Your task to perform on an android device: check data usage Image 0: 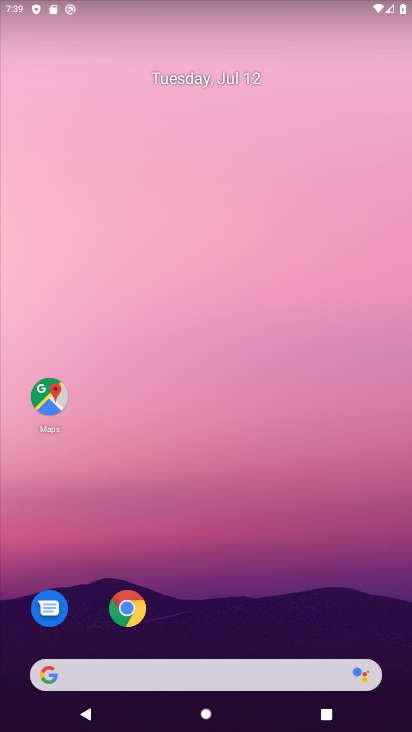
Step 0: drag from (296, 607) to (332, 135)
Your task to perform on an android device: check data usage Image 1: 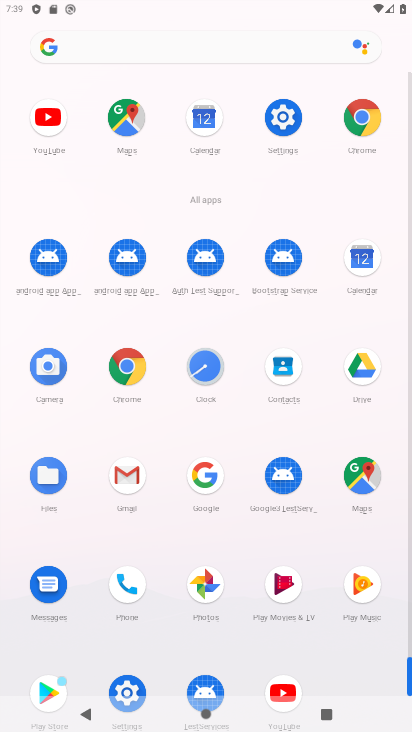
Step 1: click (290, 111)
Your task to perform on an android device: check data usage Image 2: 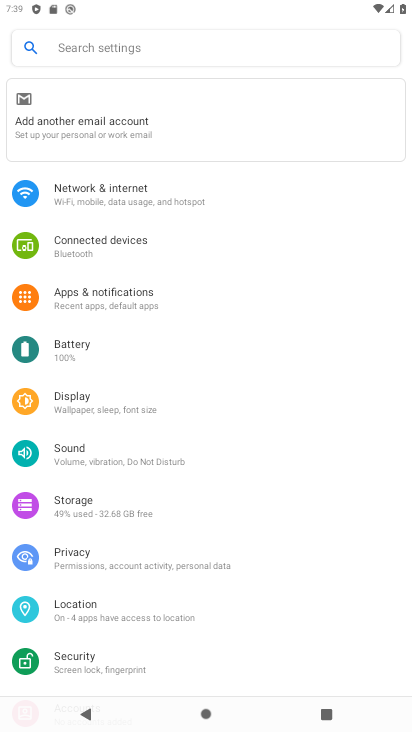
Step 2: click (148, 296)
Your task to perform on an android device: check data usage Image 3: 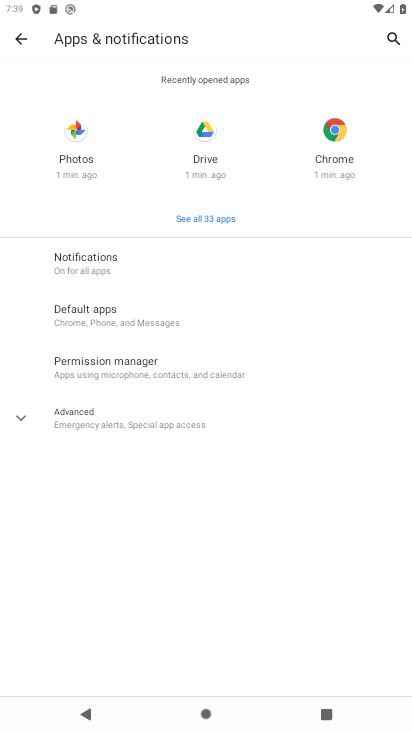
Step 3: press back button
Your task to perform on an android device: check data usage Image 4: 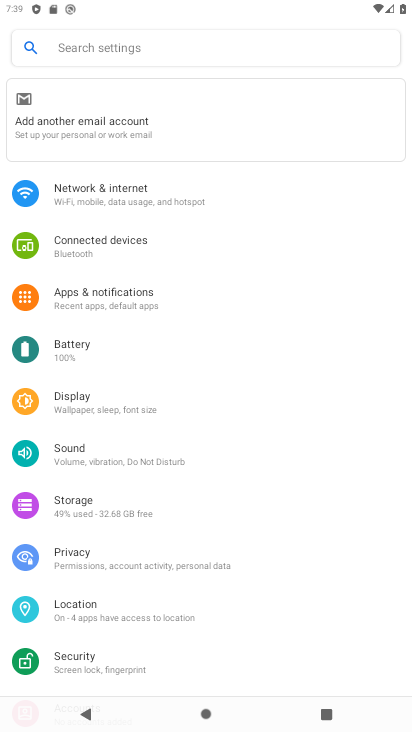
Step 4: click (97, 187)
Your task to perform on an android device: check data usage Image 5: 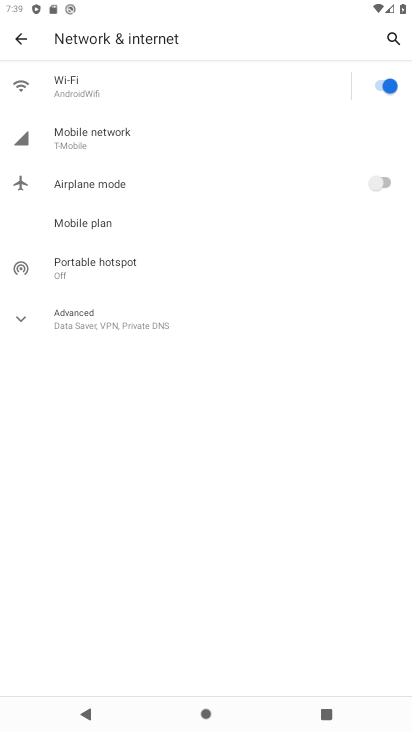
Step 5: click (156, 188)
Your task to perform on an android device: check data usage Image 6: 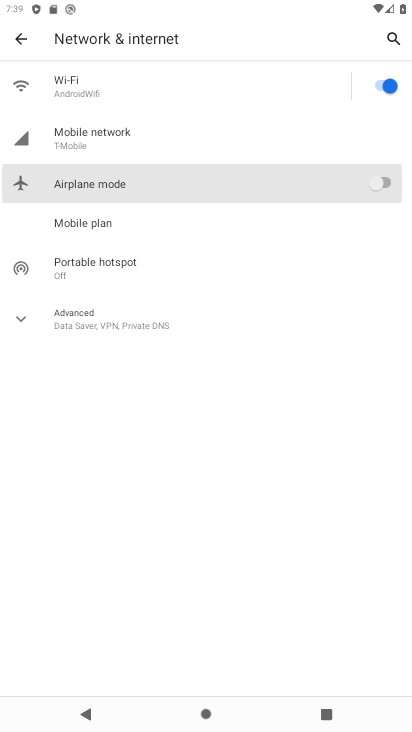
Step 6: drag from (156, 188) to (407, 181)
Your task to perform on an android device: check data usage Image 7: 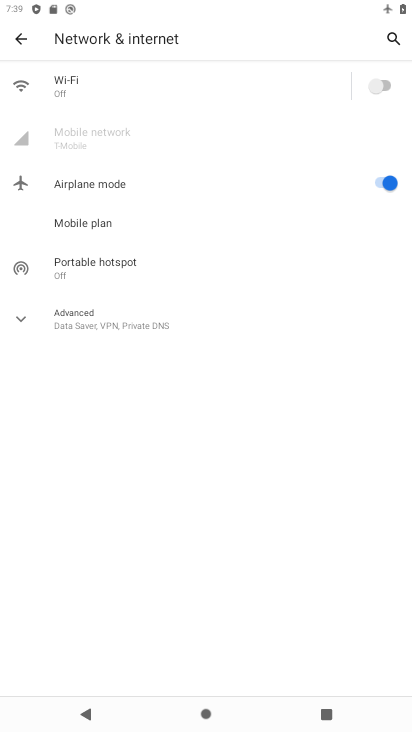
Step 7: click (371, 181)
Your task to perform on an android device: check data usage Image 8: 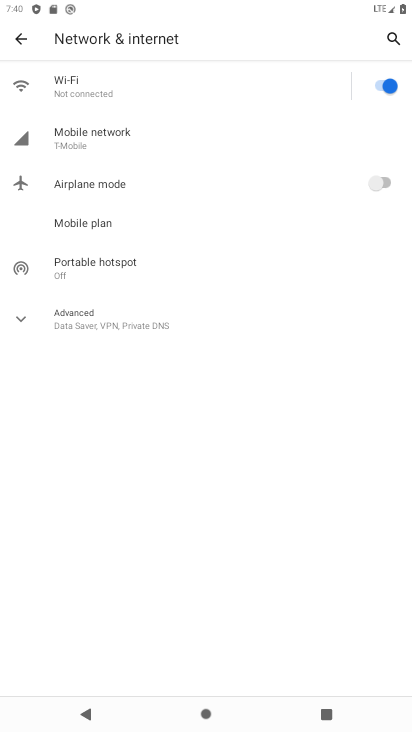
Step 8: click (184, 156)
Your task to perform on an android device: check data usage Image 9: 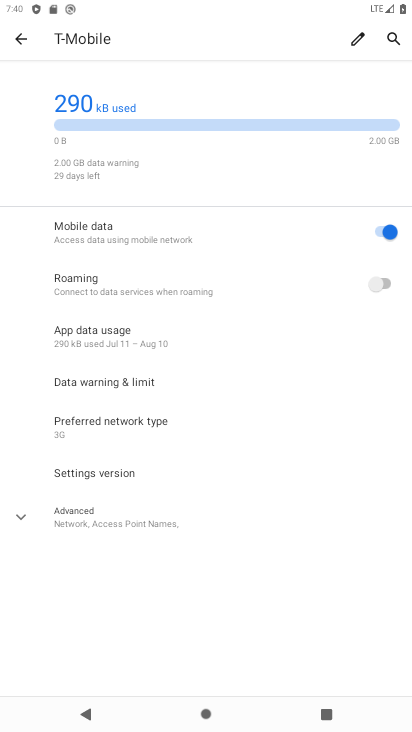
Step 9: task complete